Your task to perform on an android device: When is my next meeting? Image 0: 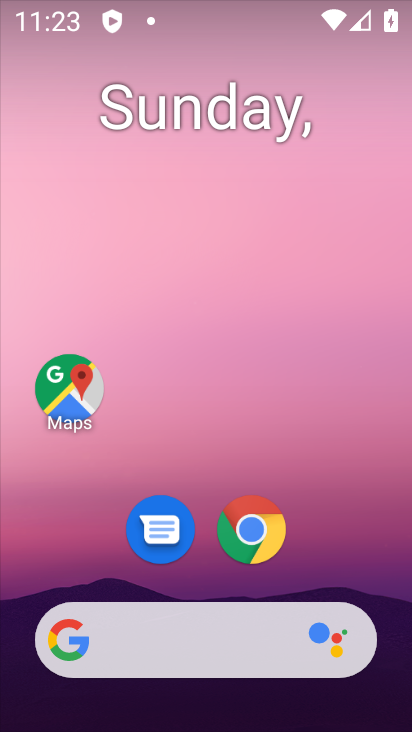
Step 0: drag from (332, 557) to (206, 90)
Your task to perform on an android device: When is my next meeting? Image 1: 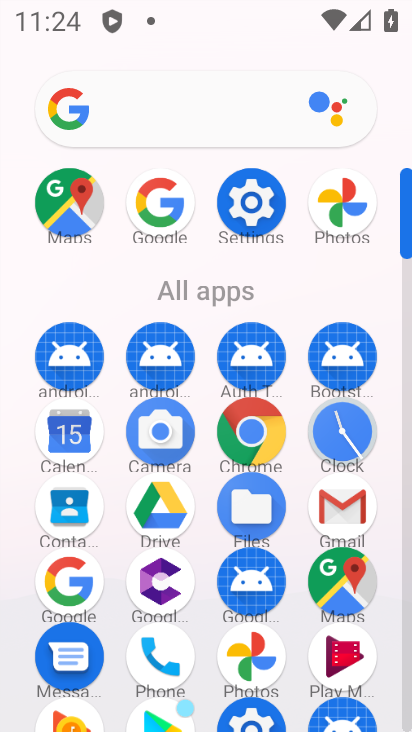
Step 1: click (71, 432)
Your task to perform on an android device: When is my next meeting? Image 2: 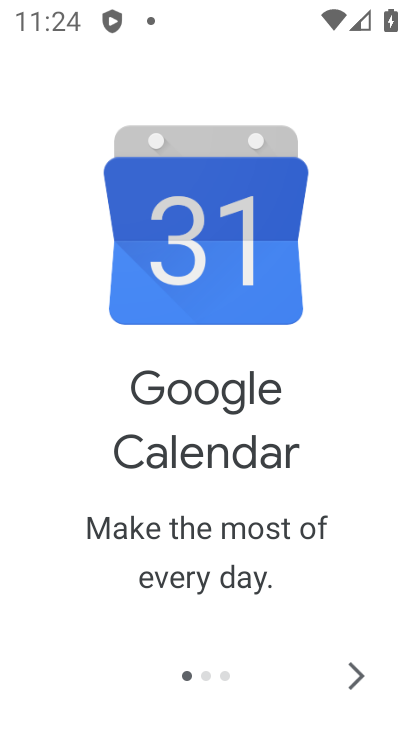
Step 2: click (358, 669)
Your task to perform on an android device: When is my next meeting? Image 3: 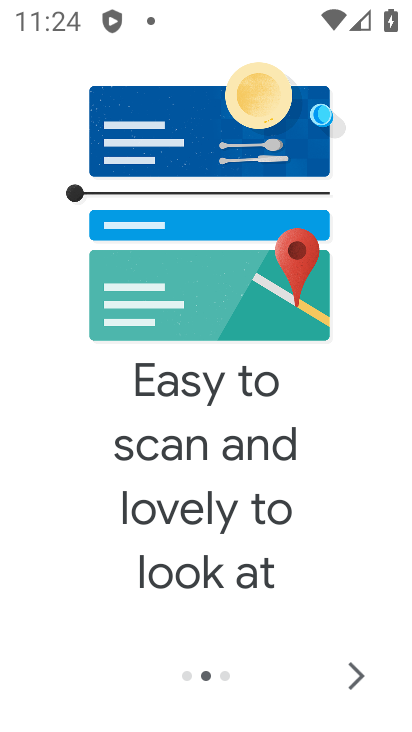
Step 3: click (358, 669)
Your task to perform on an android device: When is my next meeting? Image 4: 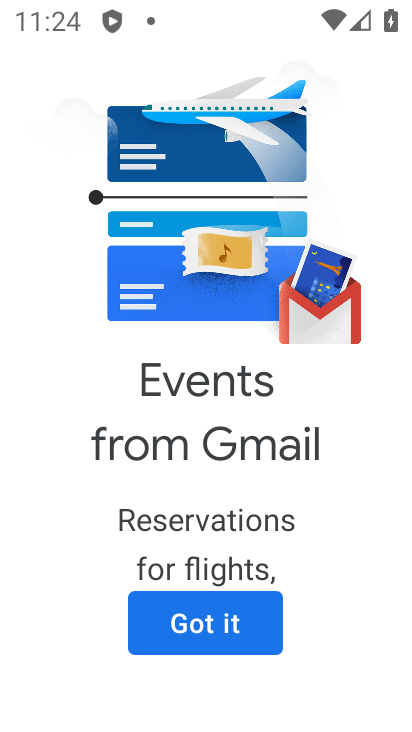
Step 4: click (200, 622)
Your task to perform on an android device: When is my next meeting? Image 5: 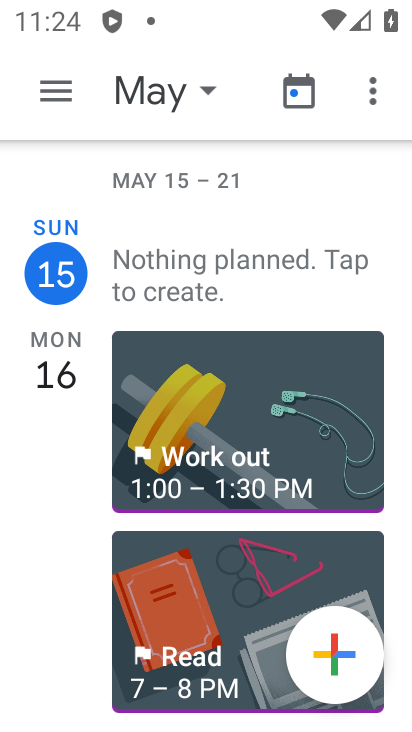
Step 5: click (209, 86)
Your task to perform on an android device: When is my next meeting? Image 6: 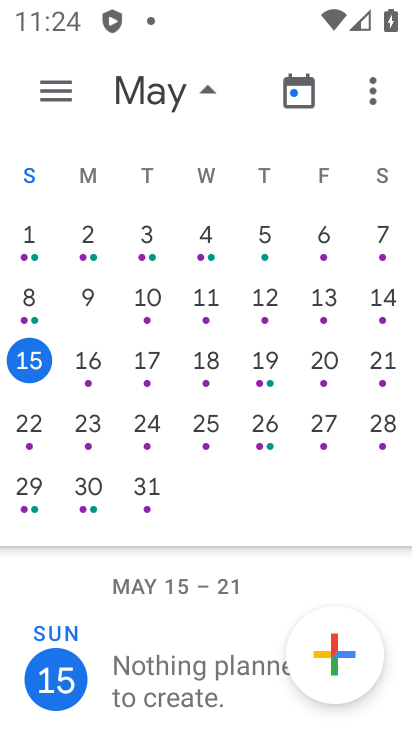
Step 6: click (89, 361)
Your task to perform on an android device: When is my next meeting? Image 7: 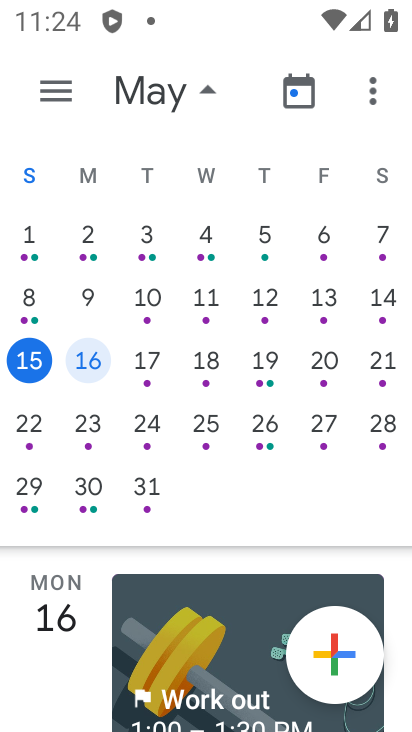
Step 7: click (69, 87)
Your task to perform on an android device: When is my next meeting? Image 8: 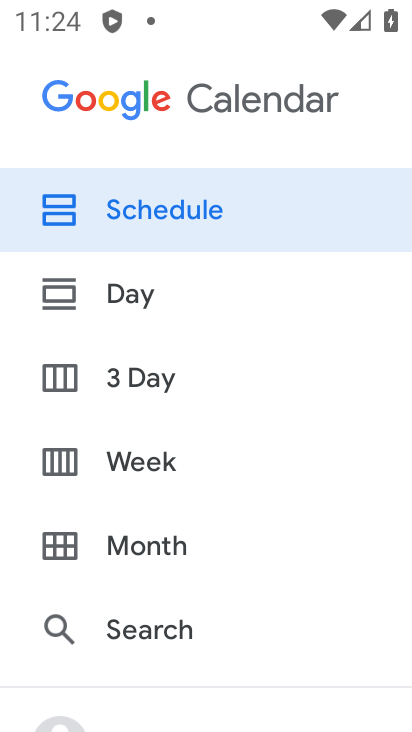
Step 8: click (104, 205)
Your task to perform on an android device: When is my next meeting? Image 9: 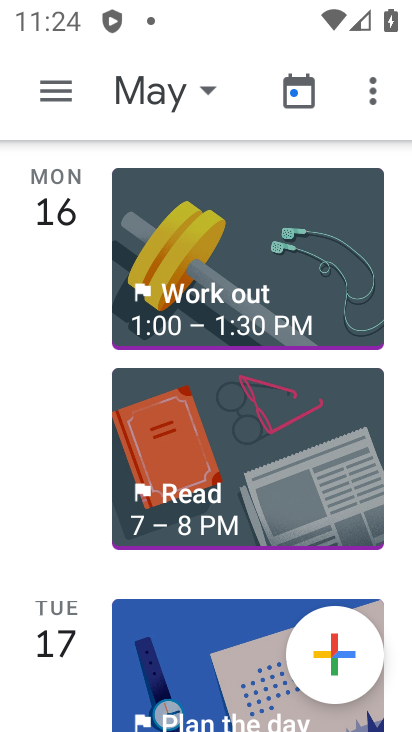
Step 9: task complete